Your task to perform on an android device: empty trash in the gmail app Image 0: 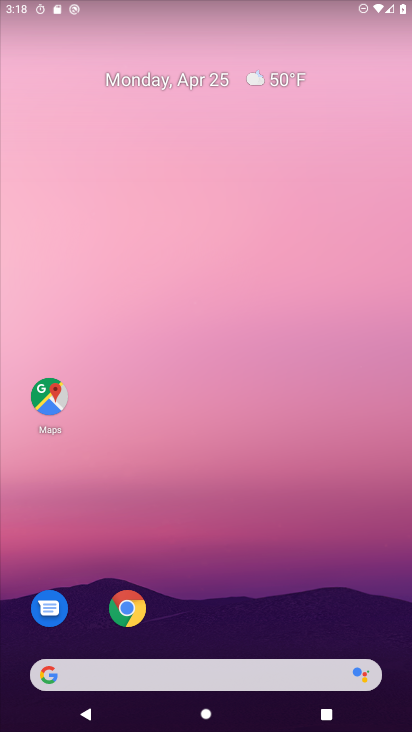
Step 0: drag from (236, 597) to (272, 217)
Your task to perform on an android device: empty trash in the gmail app Image 1: 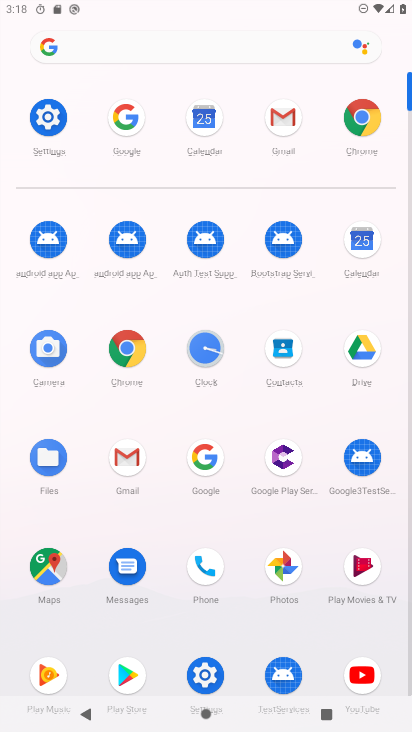
Step 1: click (273, 115)
Your task to perform on an android device: empty trash in the gmail app Image 2: 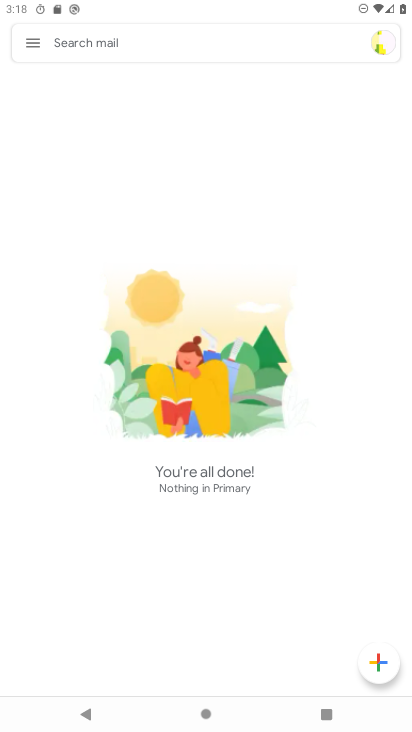
Step 2: click (38, 42)
Your task to perform on an android device: empty trash in the gmail app Image 3: 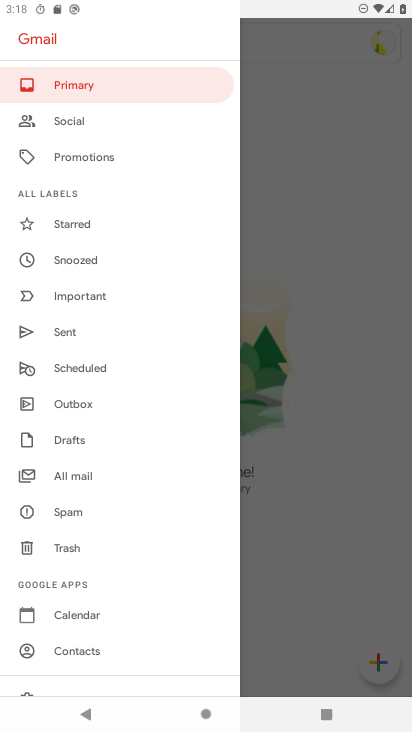
Step 3: click (90, 545)
Your task to perform on an android device: empty trash in the gmail app Image 4: 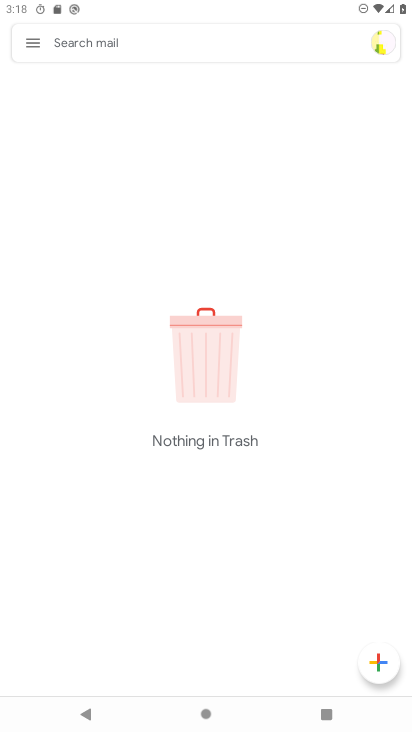
Step 4: task complete